Your task to perform on an android device: Go to CNN.com Image 0: 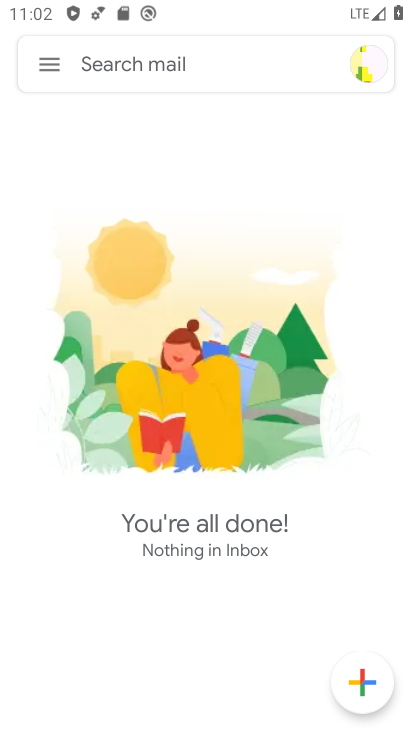
Step 0: press home button
Your task to perform on an android device: Go to CNN.com Image 1: 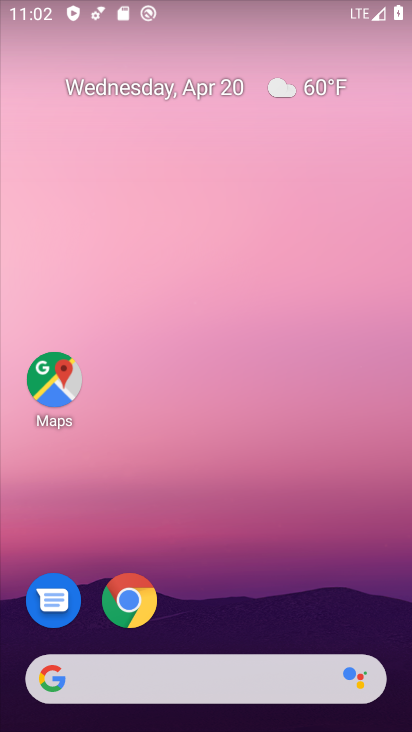
Step 1: drag from (309, 600) to (280, 201)
Your task to perform on an android device: Go to CNN.com Image 2: 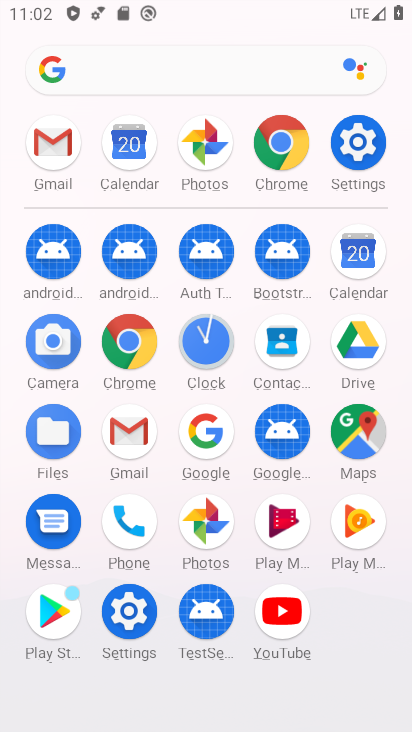
Step 2: click (138, 340)
Your task to perform on an android device: Go to CNN.com Image 3: 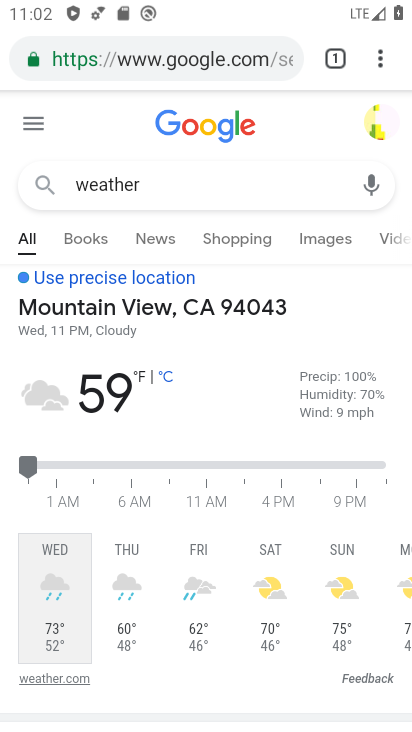
Step 3: click (201, 45)
Your task to perform on an android device: Go to CNN.com Image 4: 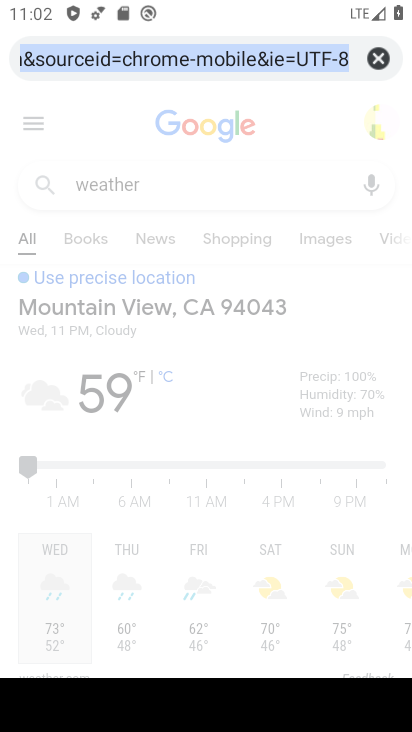
Step 4: type "cnn.com"
Your task to perform on an android device: Go to CNN.com Image 5: 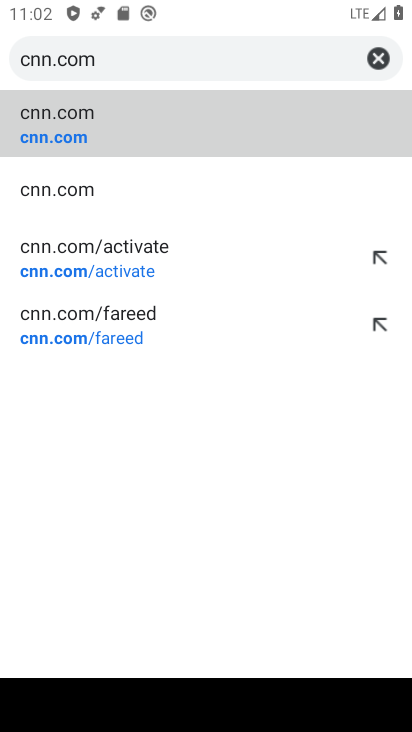
Step 5: click (58, 129)
Your task to perform on an android device: Go to CNN.com Image 6: 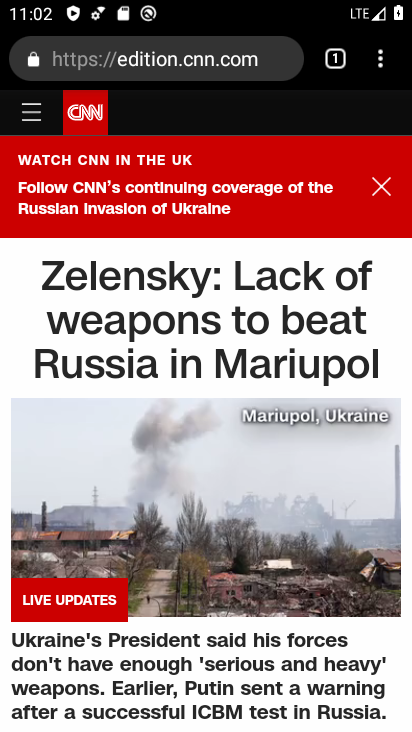
Step 6: task complete